Your task to perform on an android device: turn off airplane mode Image 0: 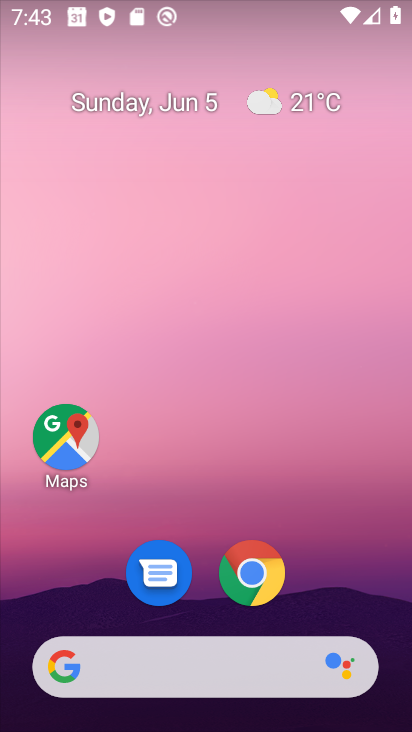
Step 0: drag from (298, 620) to (277, 275)
Your task to perform on an android device: turn off airplane mode Image 1: 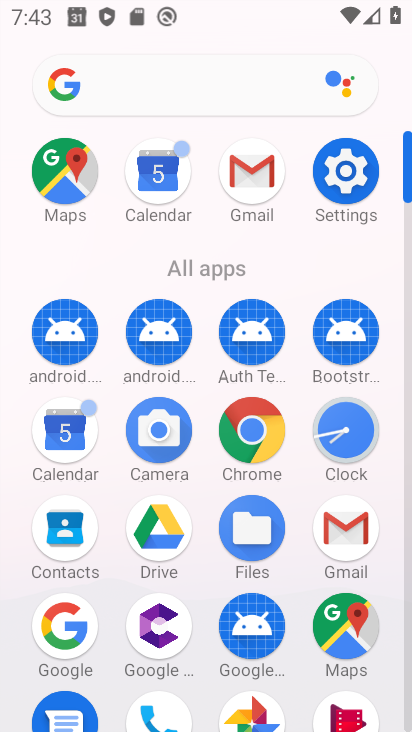
Step 1: click (354, 159)
Your task to perform on an android device: turn off airplane mode Image 2: 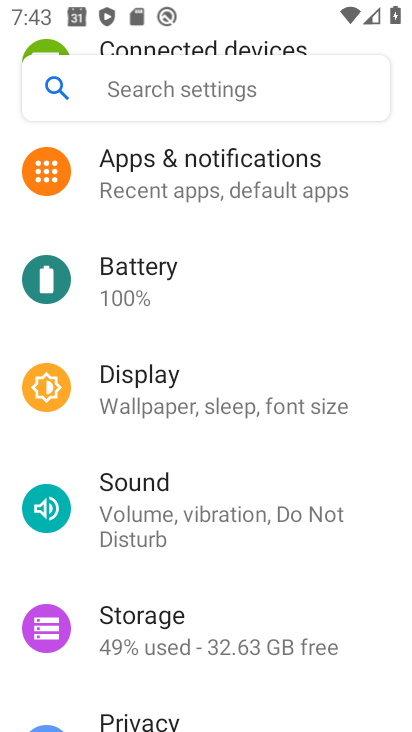
Step 2: drag from (161, 154) to (154, 574)
Your task to perform on an android device: turn off airplane mode Image 3: 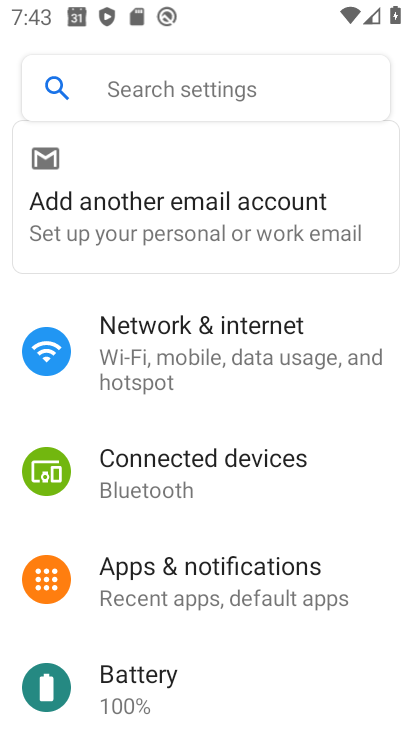
Step 3: click (148, 330)
Your task to perform on an android device: turn off airplane mode Image 4: 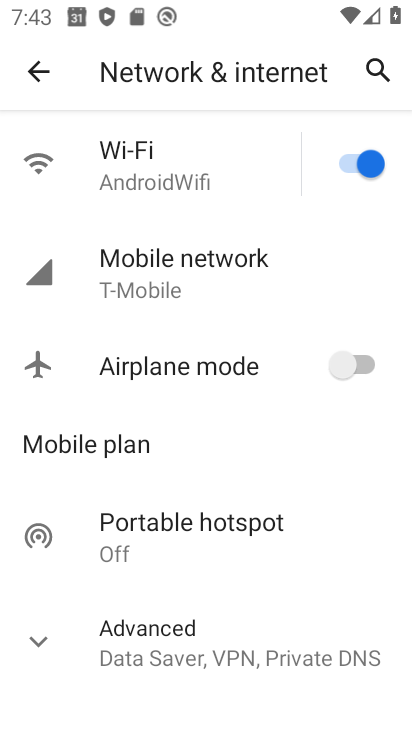
Step 4: click (343, 153)
Your task to perform on an android device: turn off airplane mode Image 5: 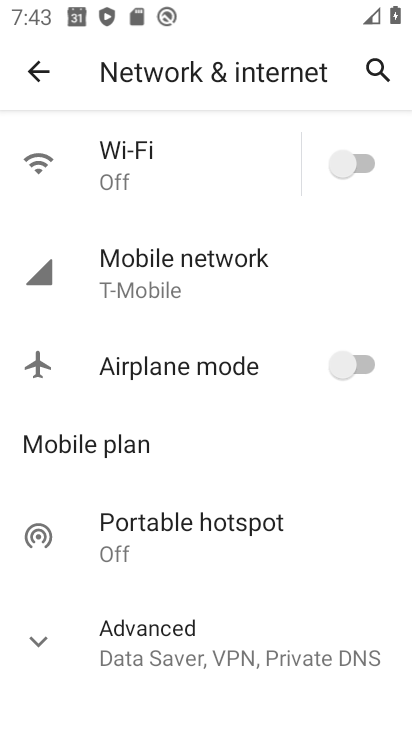
Step 5: click (357, 158)
Your task to perform on an android device: turn off airplane mode Image 6: 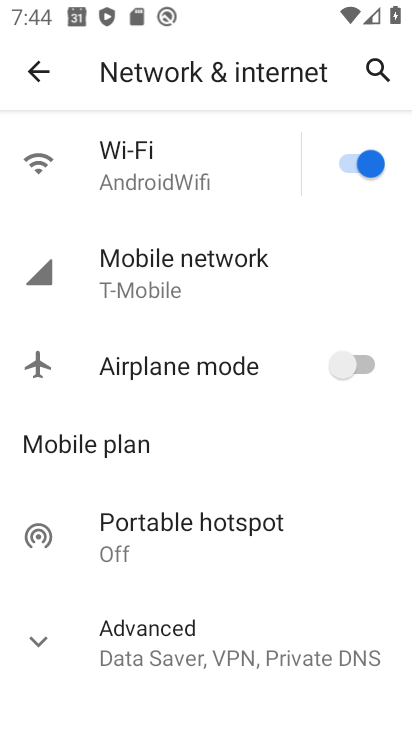
Step 6: task complete